Your task to perform on an android device: set the timer Image 0: 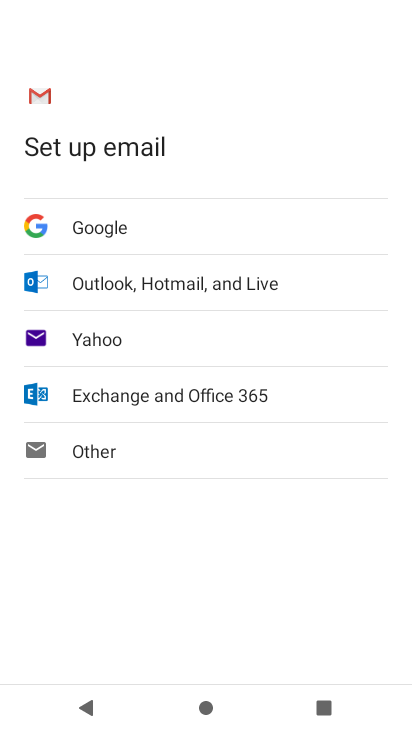
Step 0: press home button
Your task to perform on an android device: set the timer Image 1: 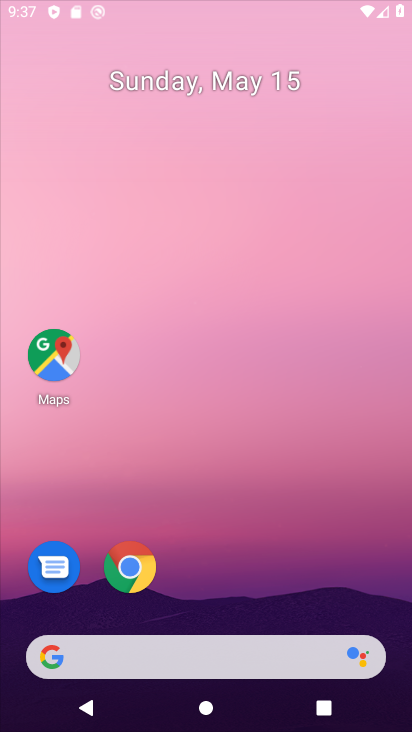
Step 1: drag from (251, 562) to (220, 71)
Your task to perform on an android device: set the timer Image 2: 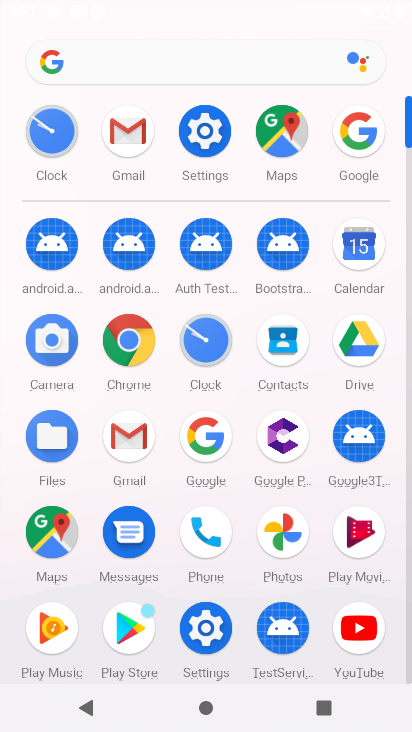
Step 2: click (213, 340)
Your task to perform on an android device: set the timer Image 3: 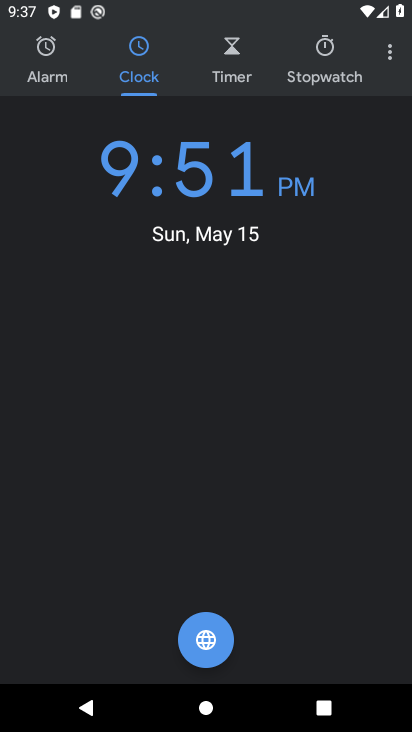
Step 3: click (245, 66)
Your task to perform on an android device: set the timer Image 4: 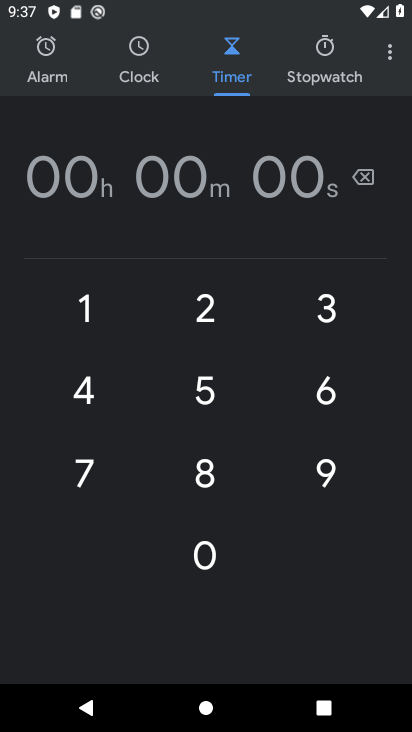
Step 4: click (199, 309)
Your task to perform on an android device: set the timer Image 5: 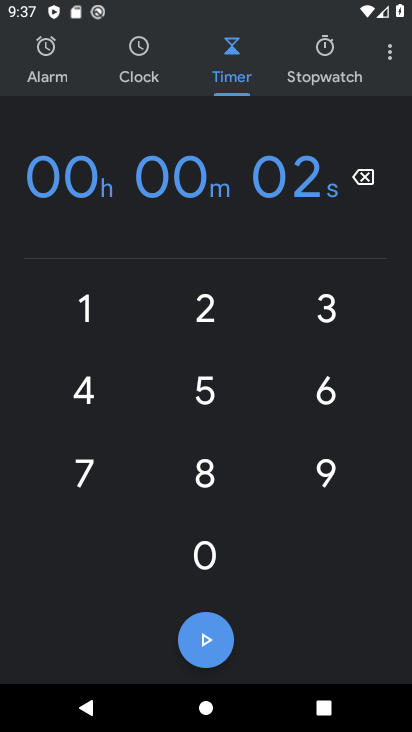
Step 5: click (199, 310)
Your task to perform on an android device: set the timer Image 6: 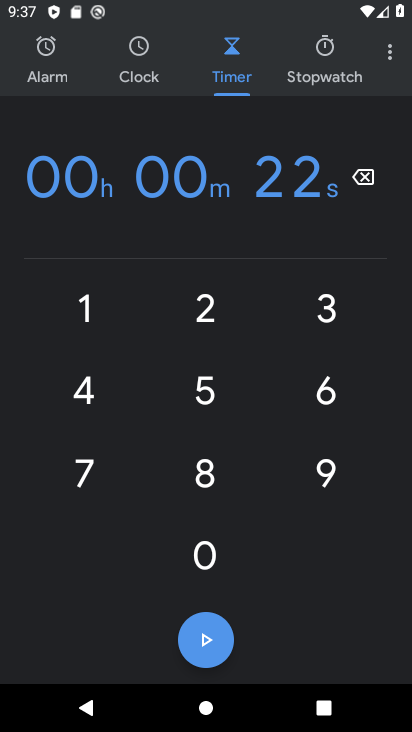
Step 6: task complete